Your task to perform on an android device: Search for sushi restaurants on Maps Image 0: 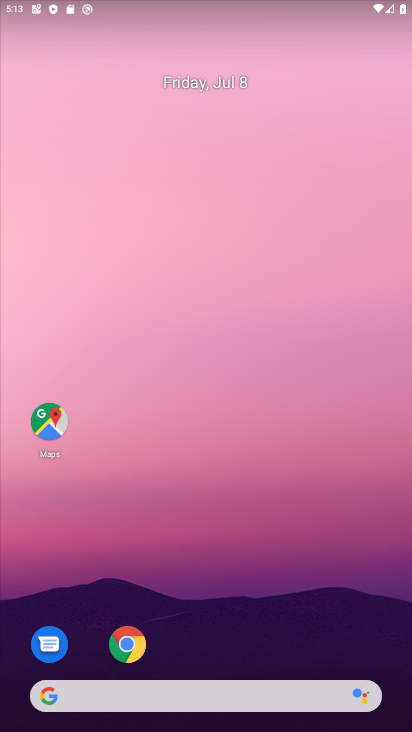
Step 0: click (46, 423)
Your task to perform on an android device: Search for sushi restaurants on Maps Image 1: 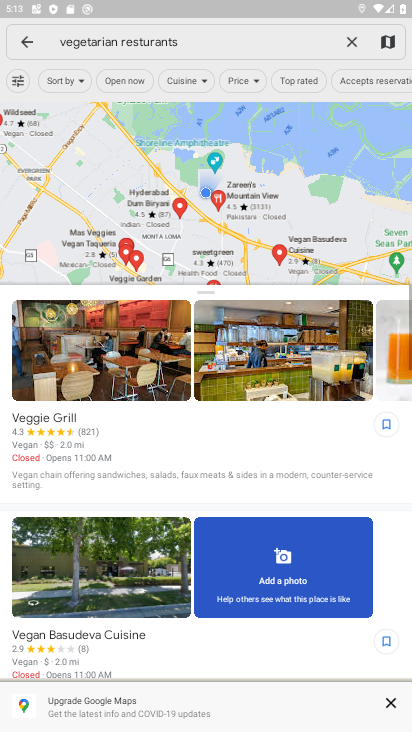
Step 1: click (352, 42)
Your task to perform on an android device: Search for sushi restaurants on Maps Image 2: 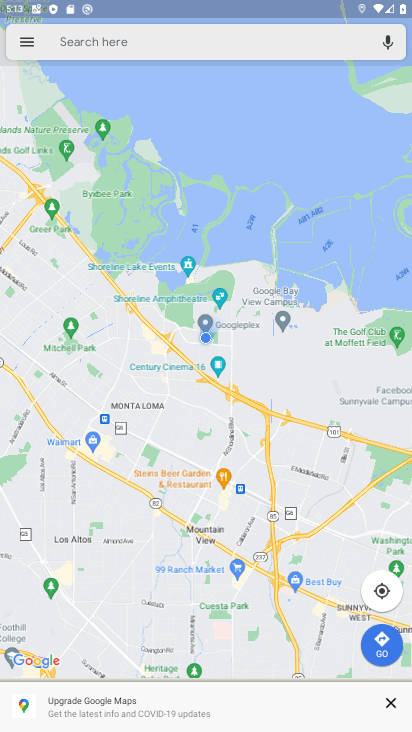
Step 2: type "sushi restaurants"
Your task to perform on an android device: Search for sushi restaurants on Maps Image 3: 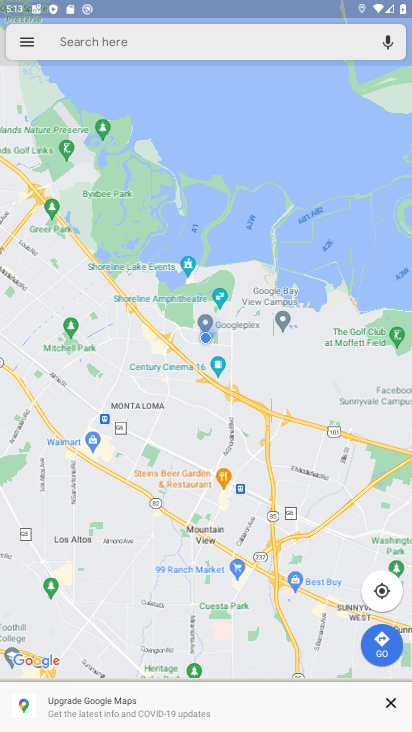
Step 3: click (193, 48)
Your task to perform on an android device: Search for sushi restaurants on Maps Image 4: 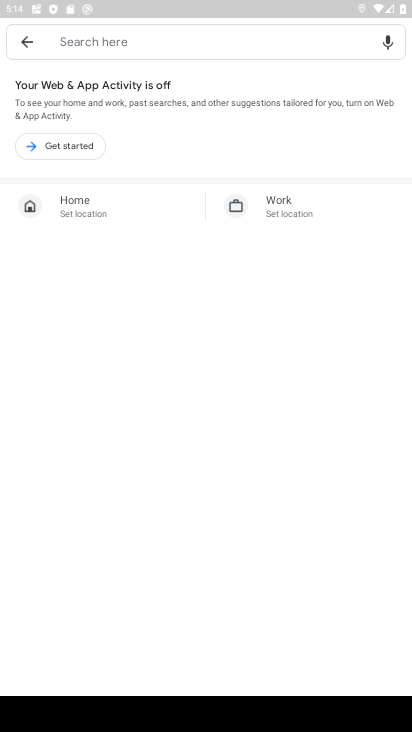
Step 4: type "sushi restaurants"
Your task to perform on an android device: Search for sushi restaurants on Maps Image 5: 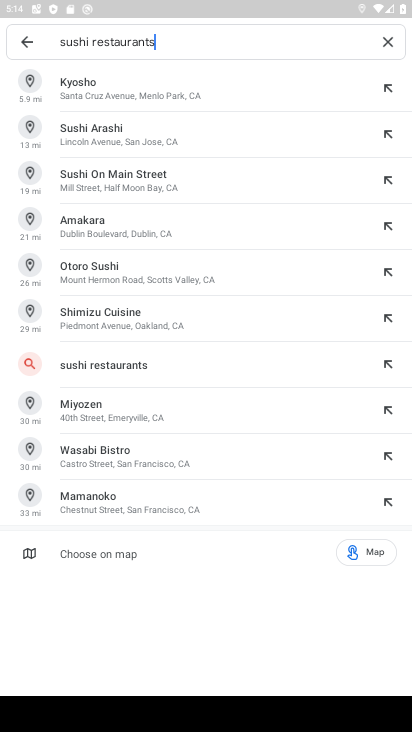
Step 5: press enter
Your task to perform on an android device: Search for sushi restaurants on Maps Image 6: 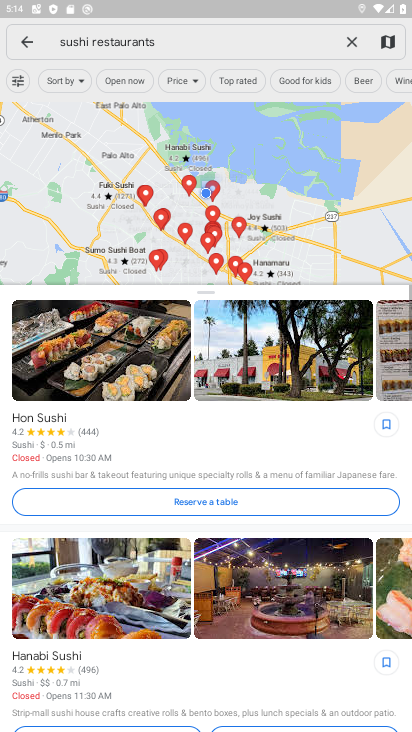
Step 6: task complete